Your task to perform on an android device: change the clock display to show seconds Image 0: 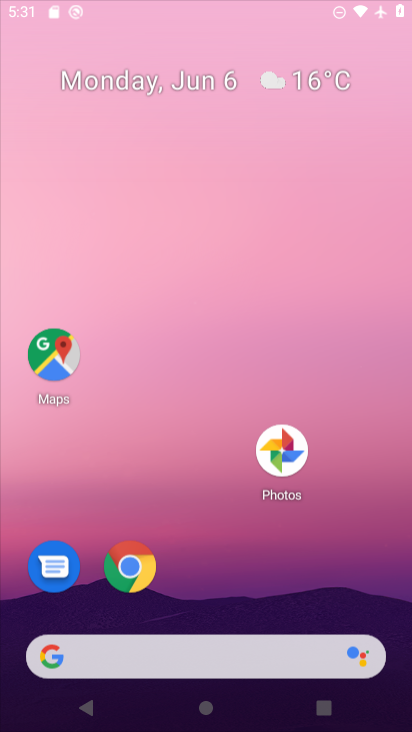
Step 0: press back button
Your task to perform on an android device: change the clock display to show seconds Image 1: 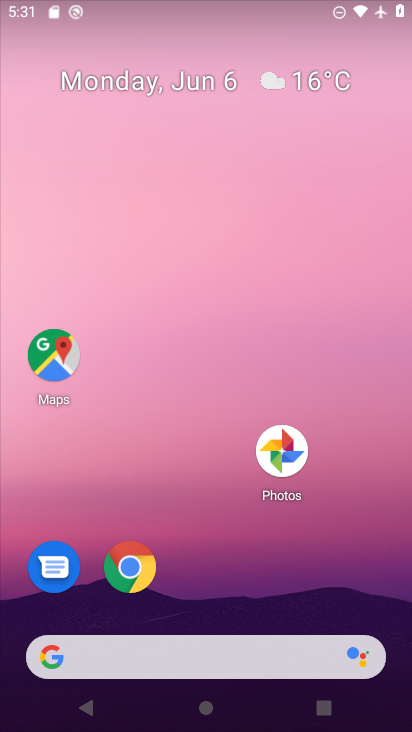
Step 1: click (161, 12)
Your task to perform on an android device: change the clock display to show seconds Image 2: 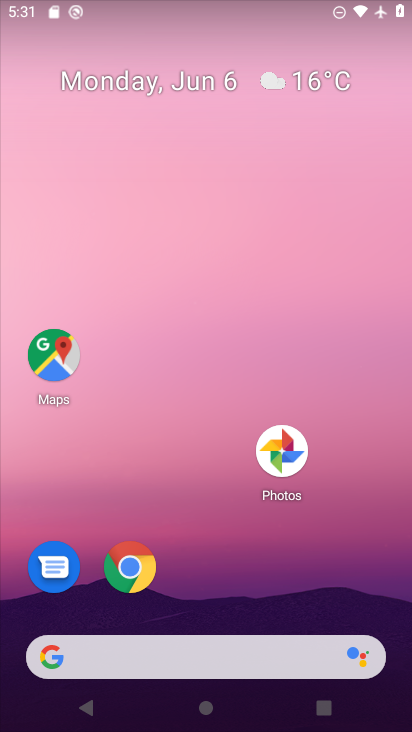
Step 2: drag from (240, 692) to (145, 131)
Your task to perform on an android device: change the clock display to show seconds Image 3: 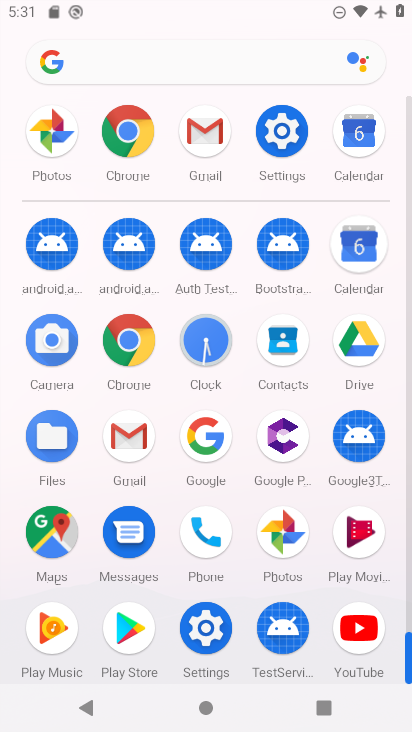
Step 3: drag from (301, 570) to (193, 139)
Your task to perform on an android device: change the clock display to show seconds Image 4: 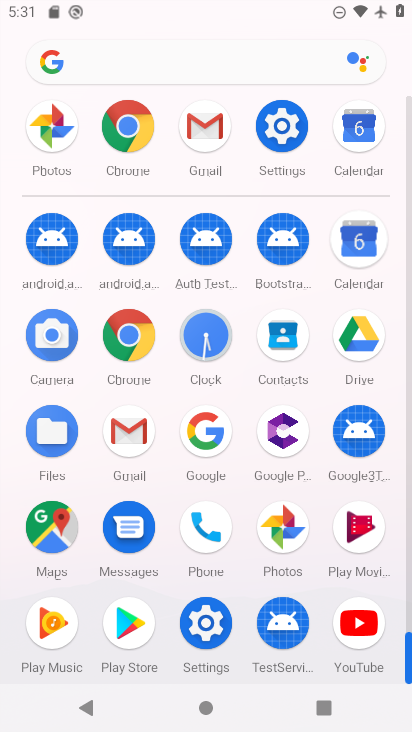
Step 4: click (203, 330)
Your task to perform on an android device: change the clock display to show seconds Image 5: 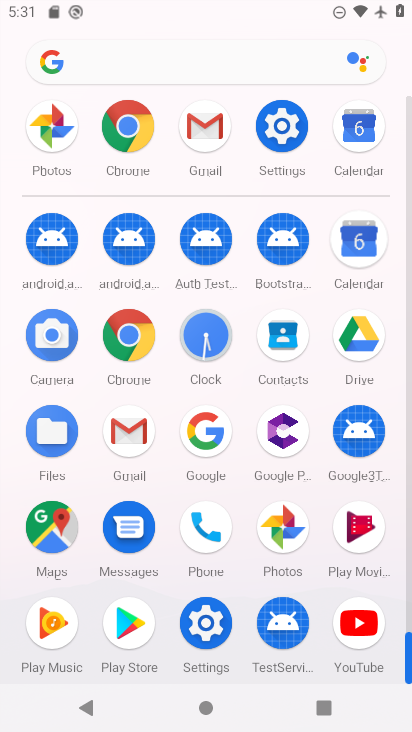
Step 5: click (205, 331)
Your task to perform on an android device: change the clock display to show seconds Image 6: 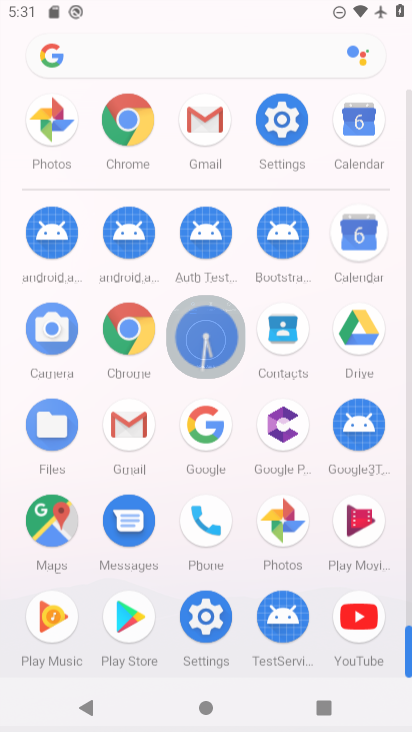
Step 6: click (210, 329)
Your task to perform on an android device: change the clock display to show seconds Image 7: 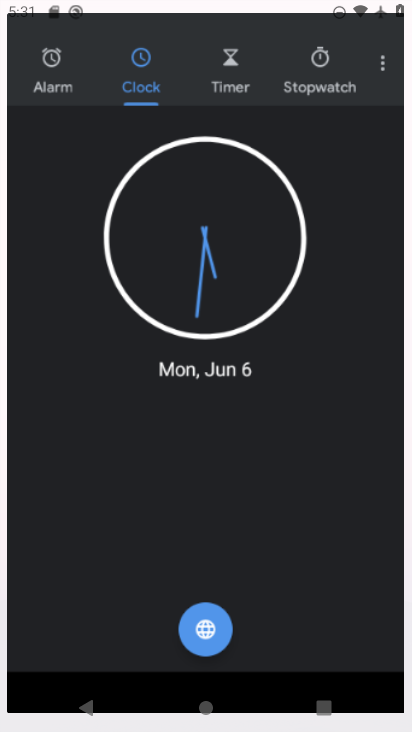
Step 7: click (210, 328)
Your task to perform on an android device: change the clock display to show seconds Image 8: 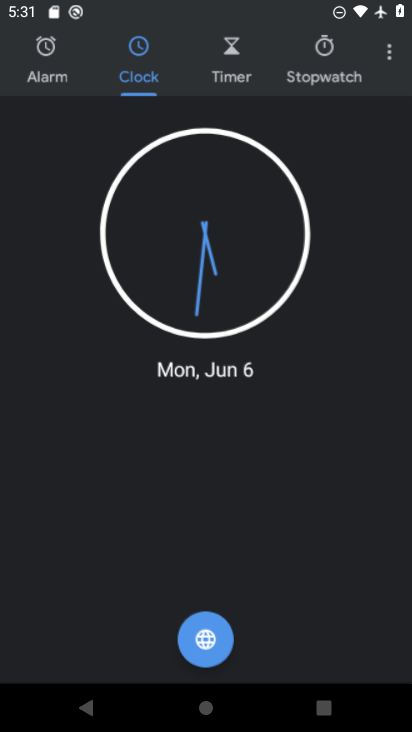
Step 8: click (207, 325)
Your task to perform on an android device: change the clock display to show seconds Image 9: 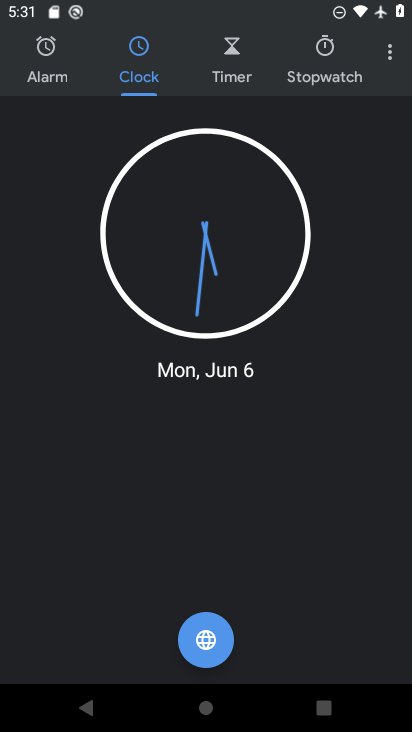
Step 9: click (205, 322)
Your task to perform on an android device: change the clock display to show seconds Image 10: 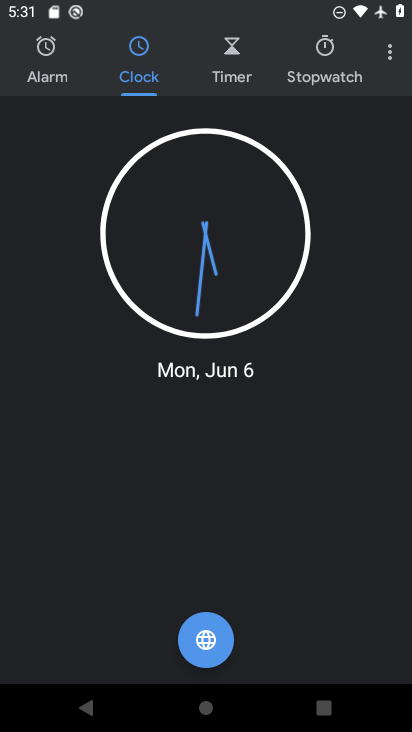
Step 10: click (319, 61)
Your task to perform on an android device: change the clock display to show seconds Image 11: 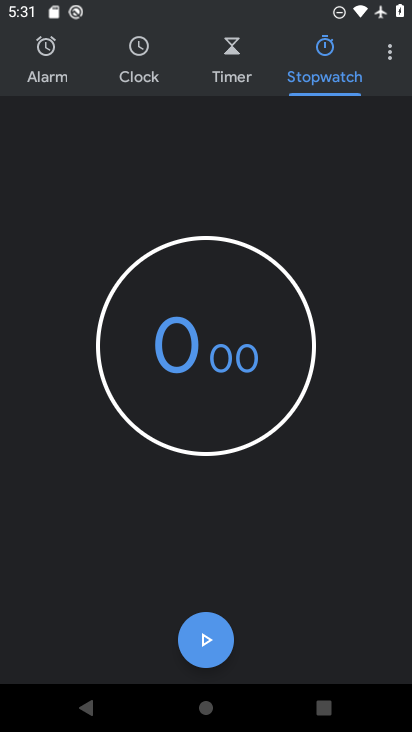
Step 11: click (392, 52)
Your task to perform on an android device: change the clock display to show seconds Image 12: 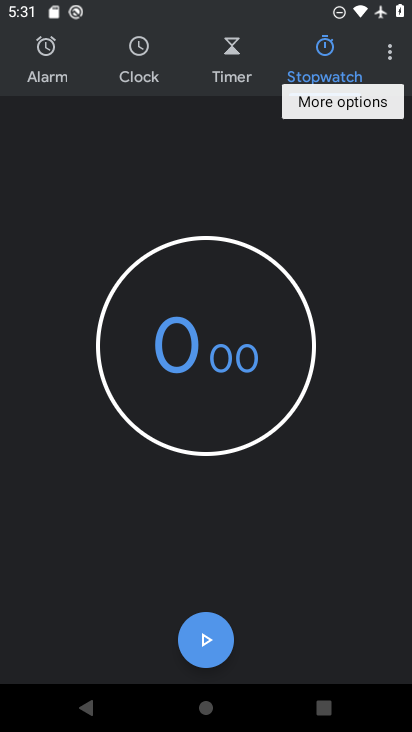
Step 12: click (341, 101)
Your task to perform on an android device: change the clock display to show seconds Image 13: 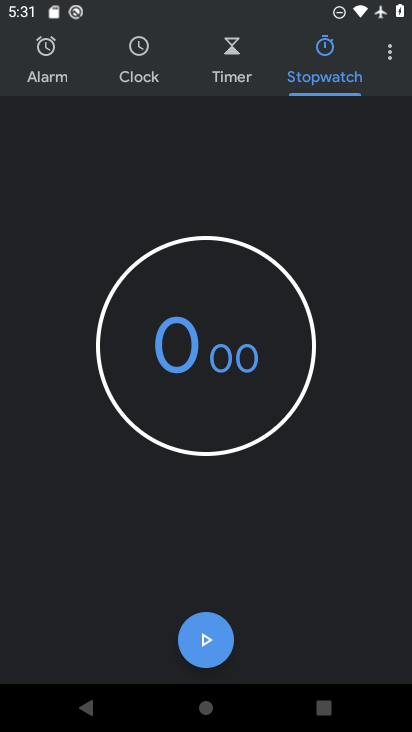
Step 13: click (382, 48)
Your task to perform on an android device: change the clock display to show seconds Image 14: 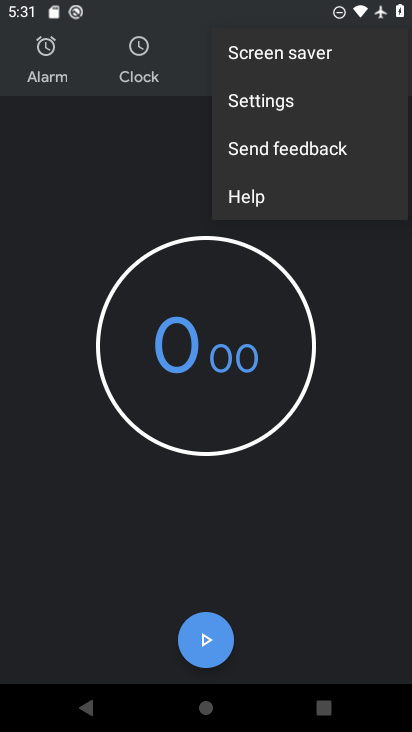
Step 14: click (221, 102)
Your task to perform on an android device: change the clock display to show seconds Image 15: 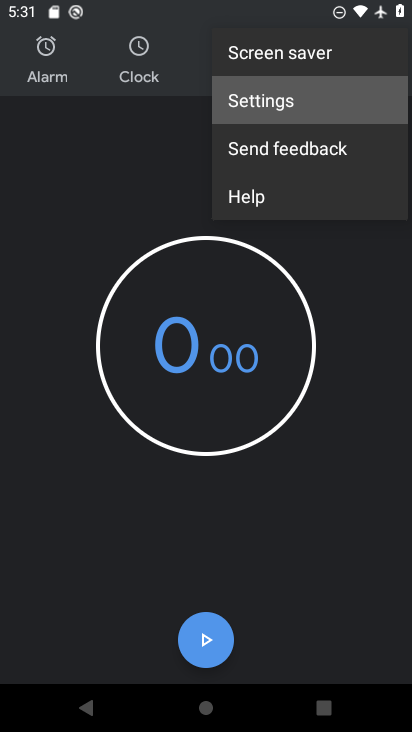
Step 15: click (247, 104)
Your task to perform on an android device: change the clock display to show seconds Image 16: 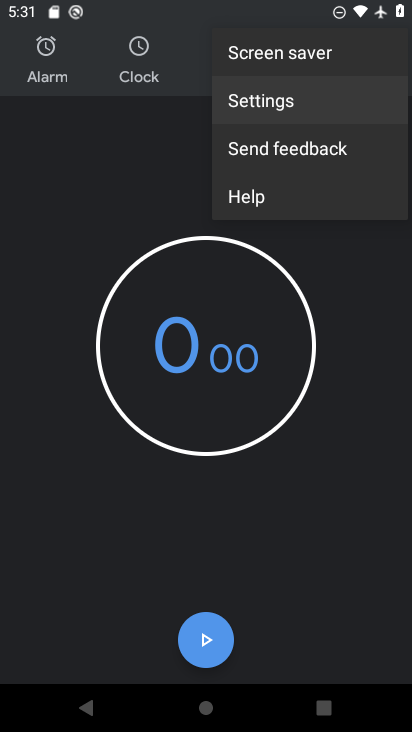
Step 16: click (251, 105)
Your task to perform on an android device: change the clock display to show seconds Image 17: 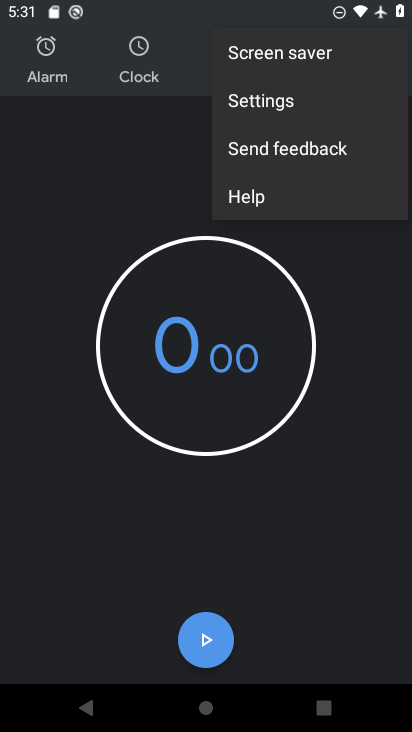
Step 17: click (251, 105)
Your task to perform on an android device: change the clock display to show seconds Image 18: 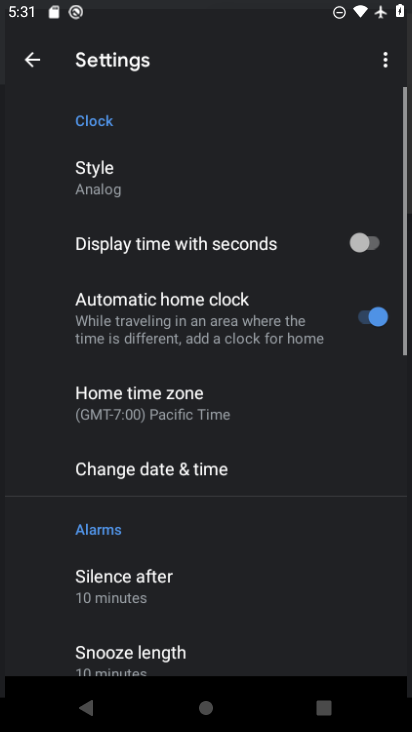
Step 18: click (251, 105)
Your task to perform on an android device: change the clock display to show seconds Image 19: 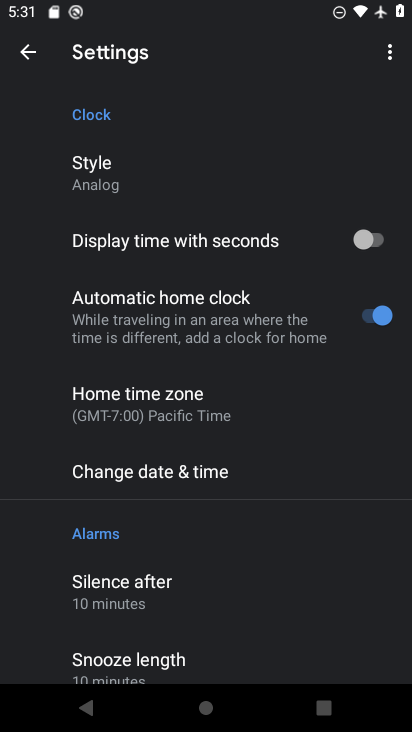
Step 19: click (375, 244)
Your task to perform on an android device: change the clock display to show seconds Image 20: 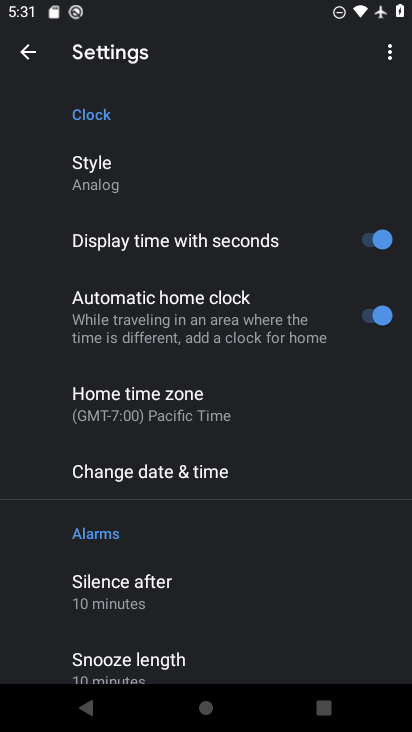
Step 20: task complete